Your task to perform on an android device: allow cookies in the chrome app Image 0: 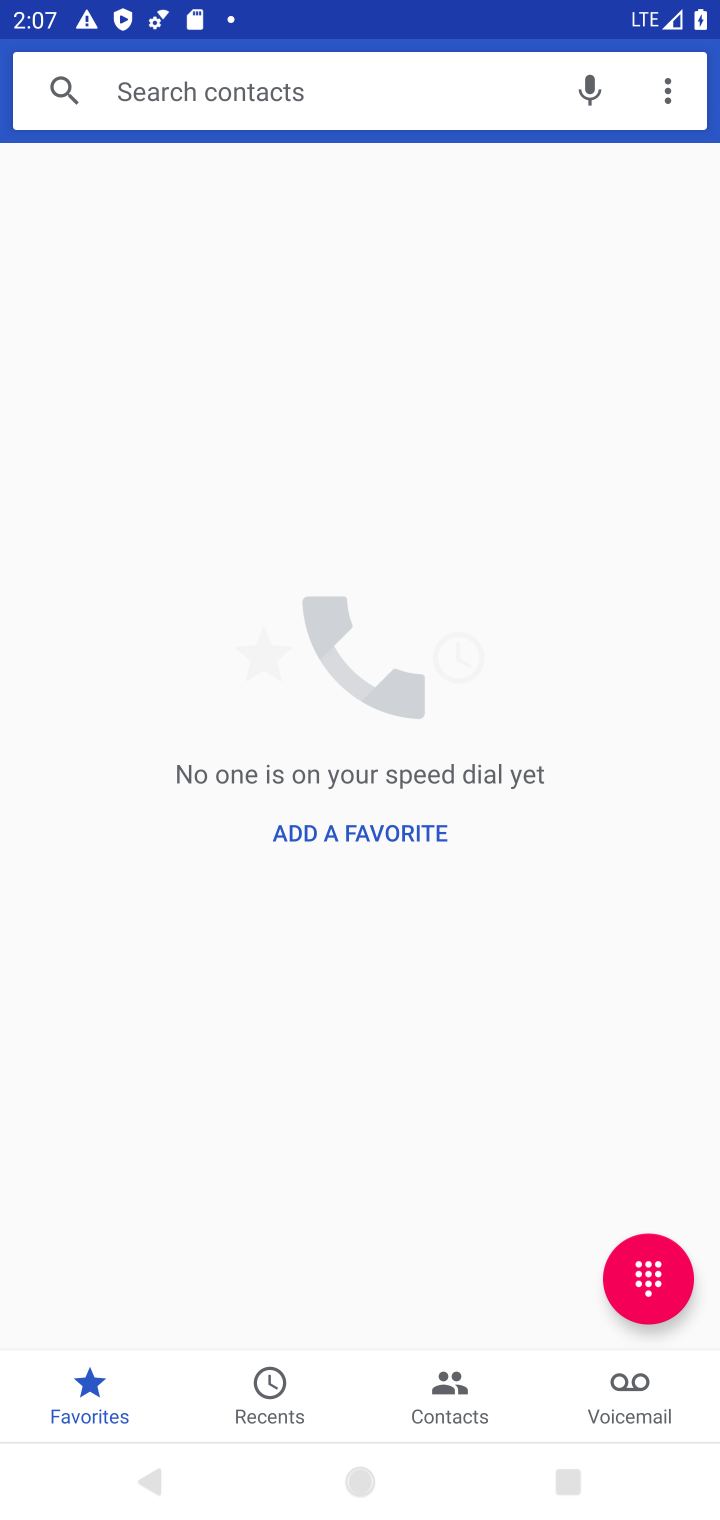
Step 0: press back button
Your task to perform on an android device: allow cookies in the chrome app Image 1: 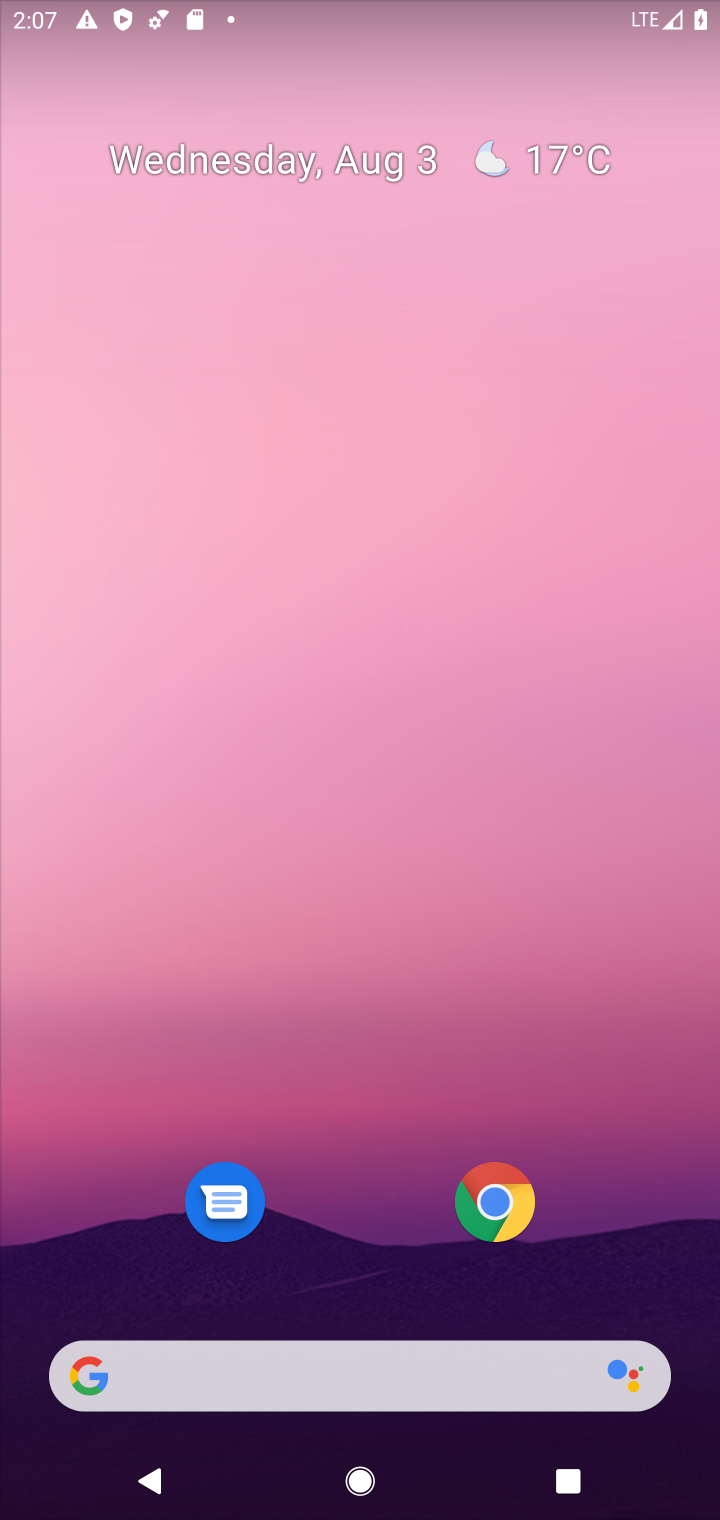
Step 1: press back button
Your task to perform on an android device: allow cookies in the chrome app Image 2: 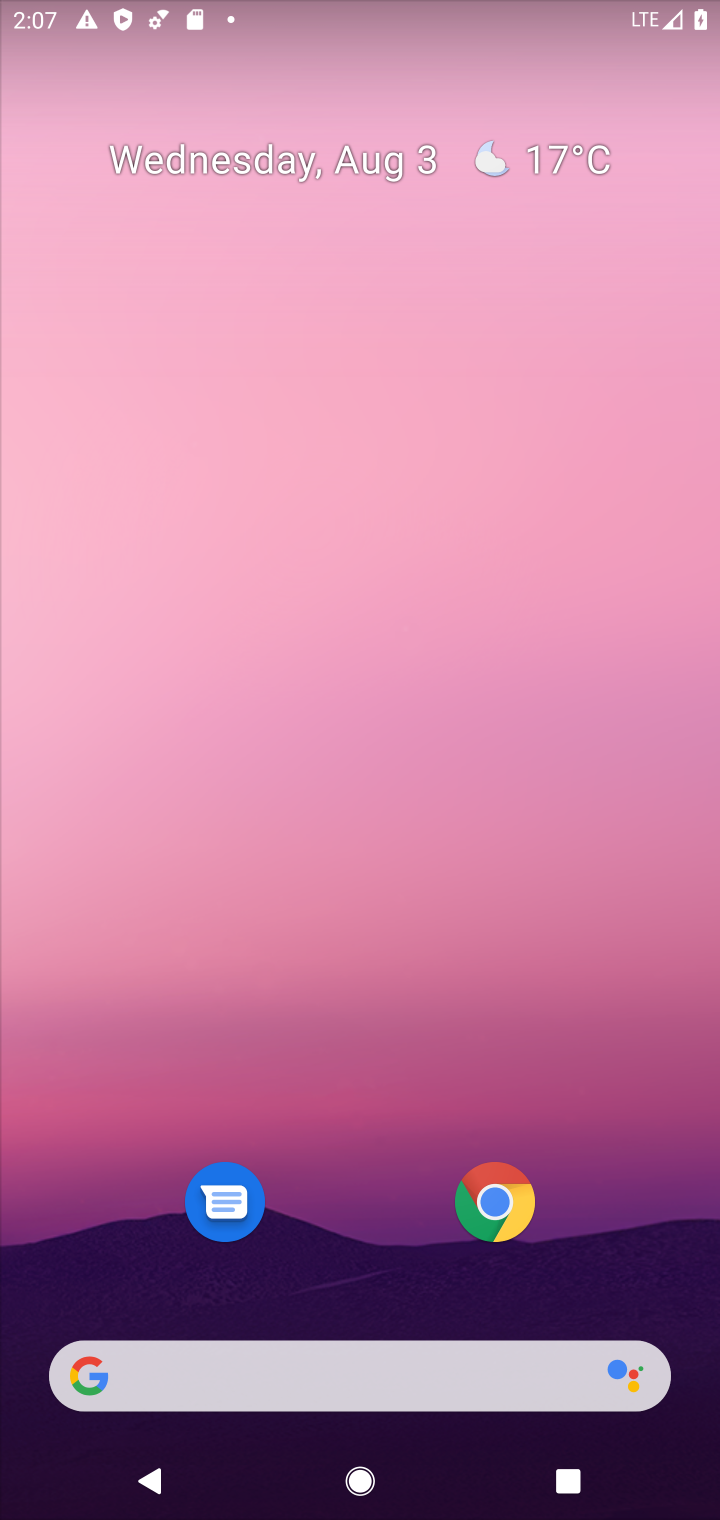
Step 2: click (533, 1200)
Your task to perform on an android device: allow cookies in the chrome app Image 3: 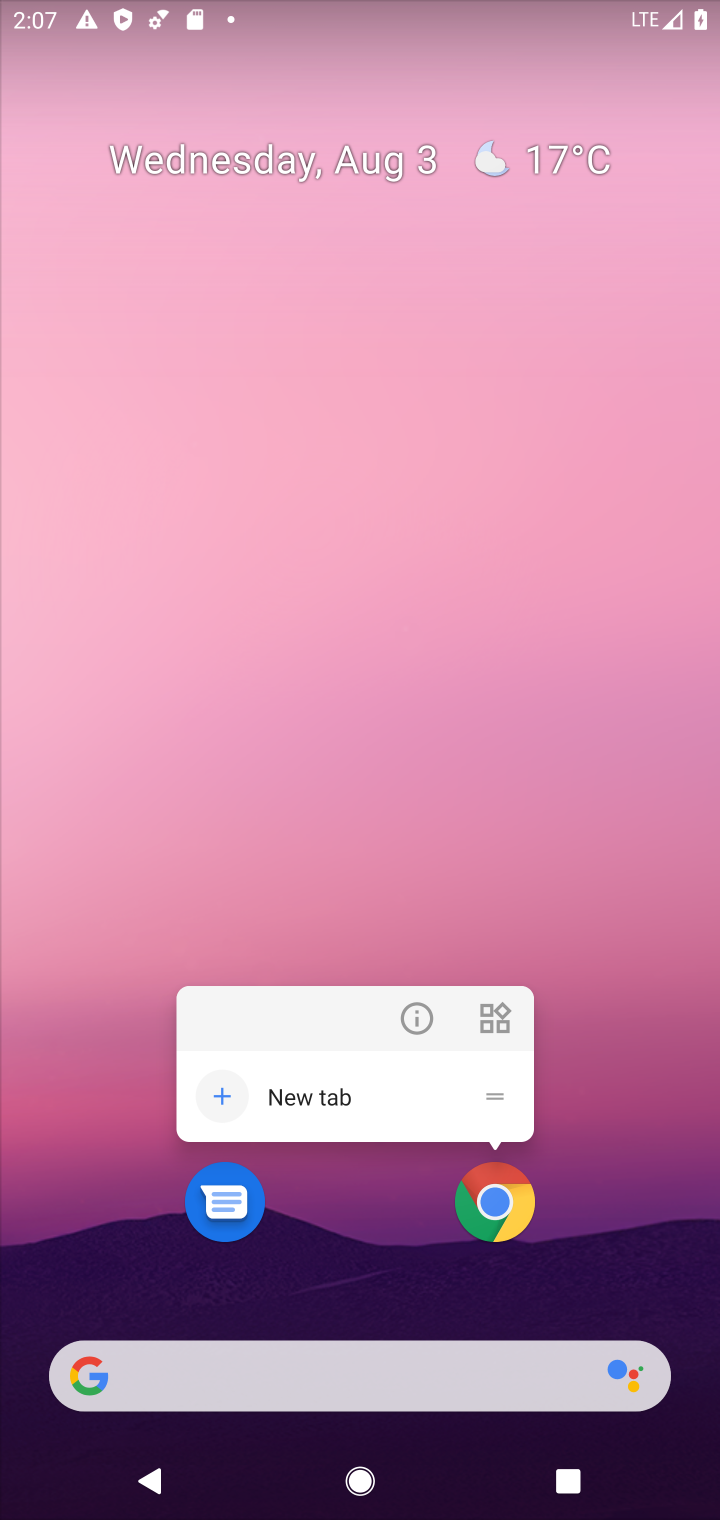
Step 3: click (470, 1198)
Your task to perform on an android device: allow cookies in the chrome app Image 4: 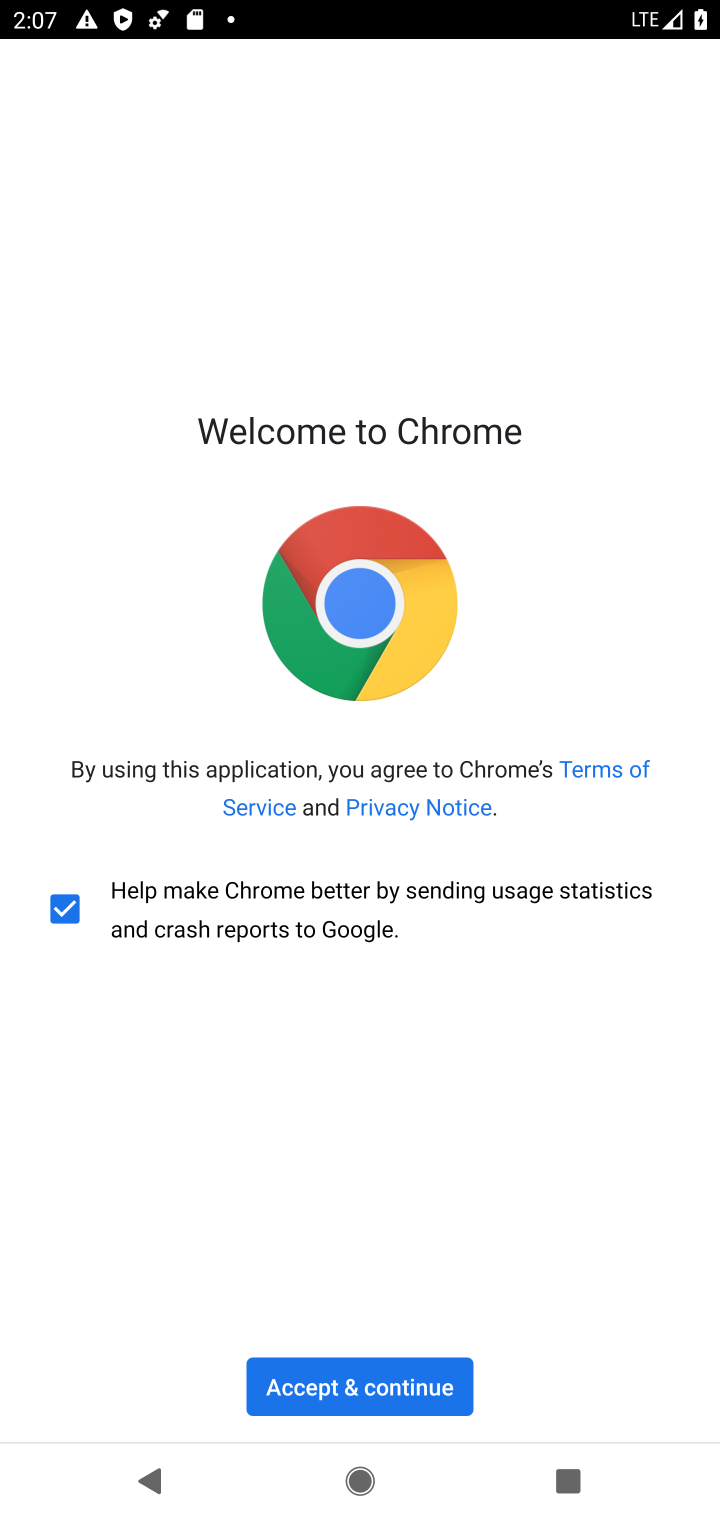
Step 4: click (345, 1385)
Your task to perform on an android device: allow cookies in the chrome app Image 5: 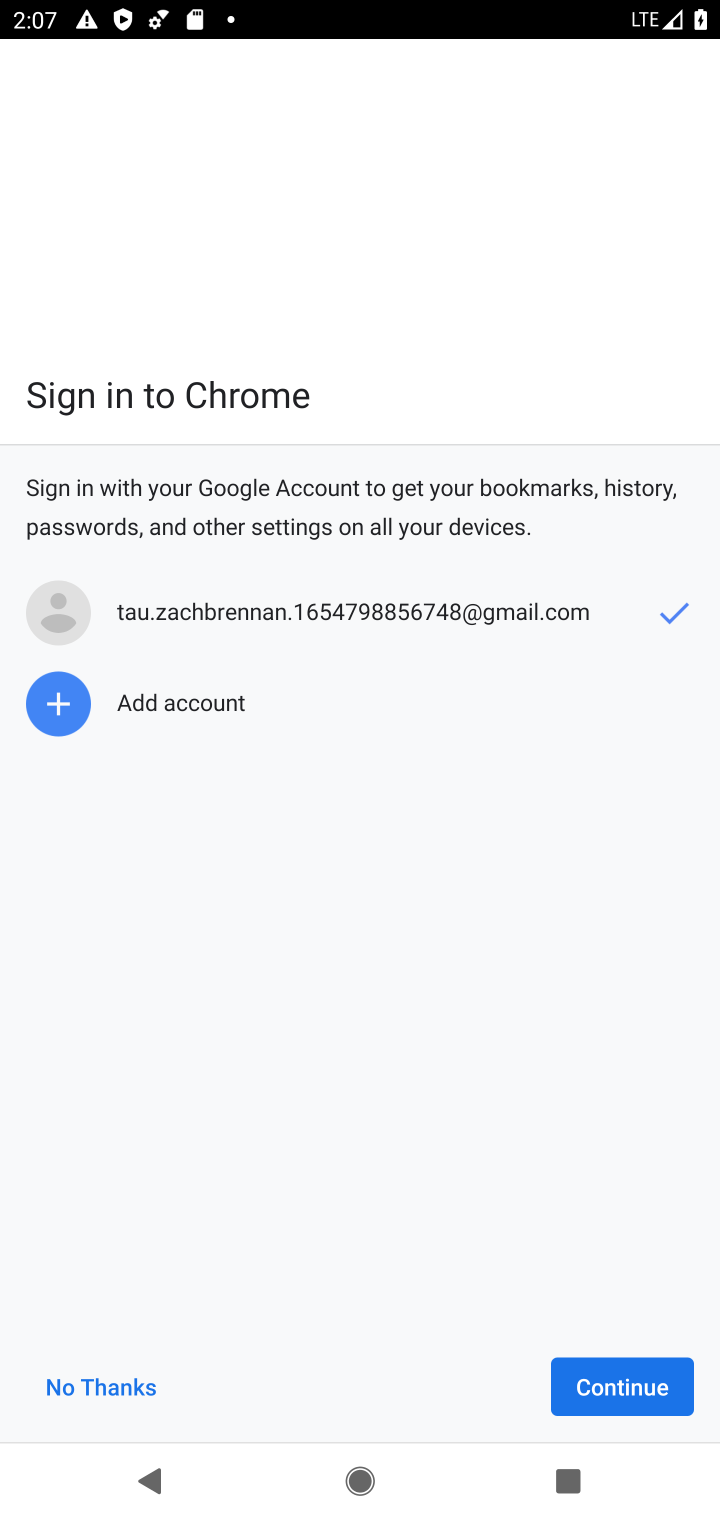
Step 5: click (584, 1389)
Your task to perform on an android device: allow cookies in the chrome app Image 6: 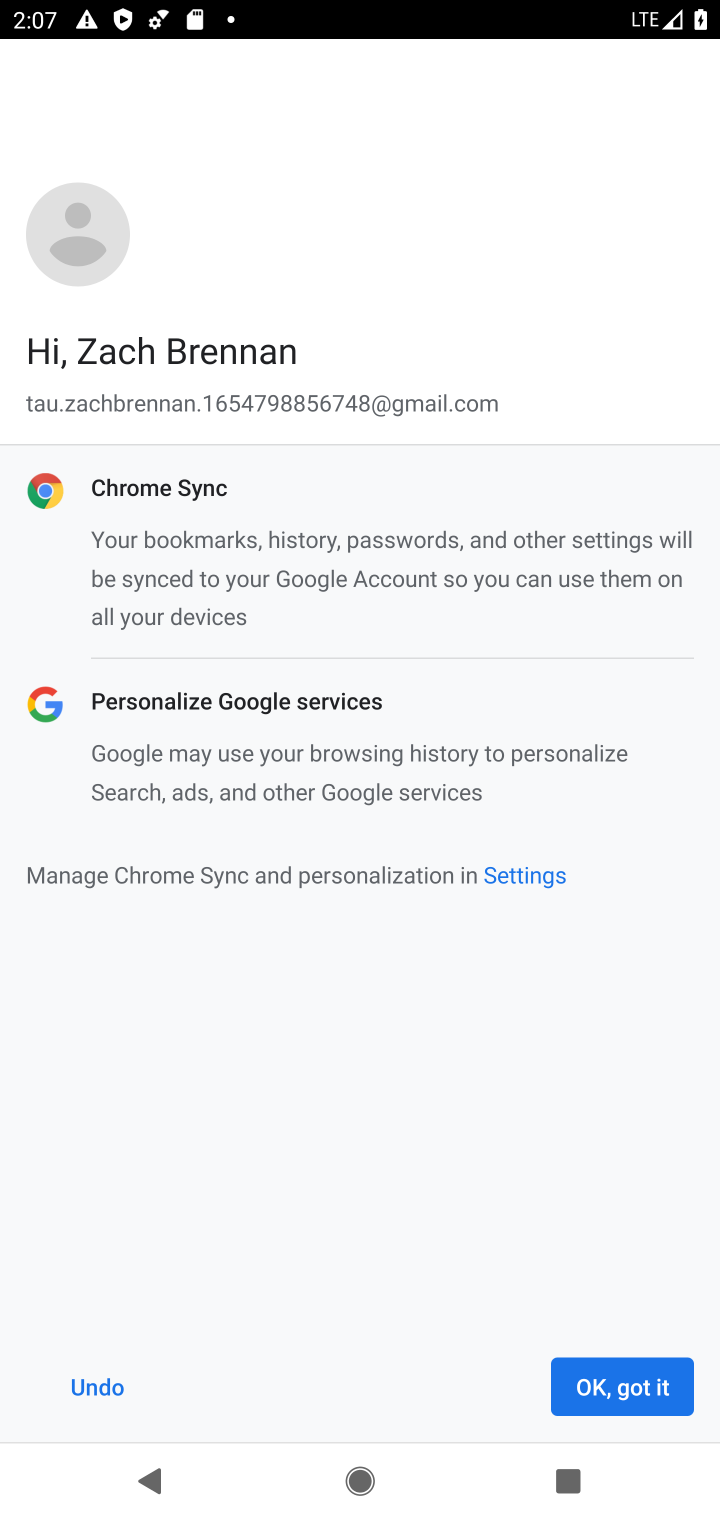
Step 6: click (590, 1385)
Your task to perform on an android device: allow cookies in the chrome app Image 7: 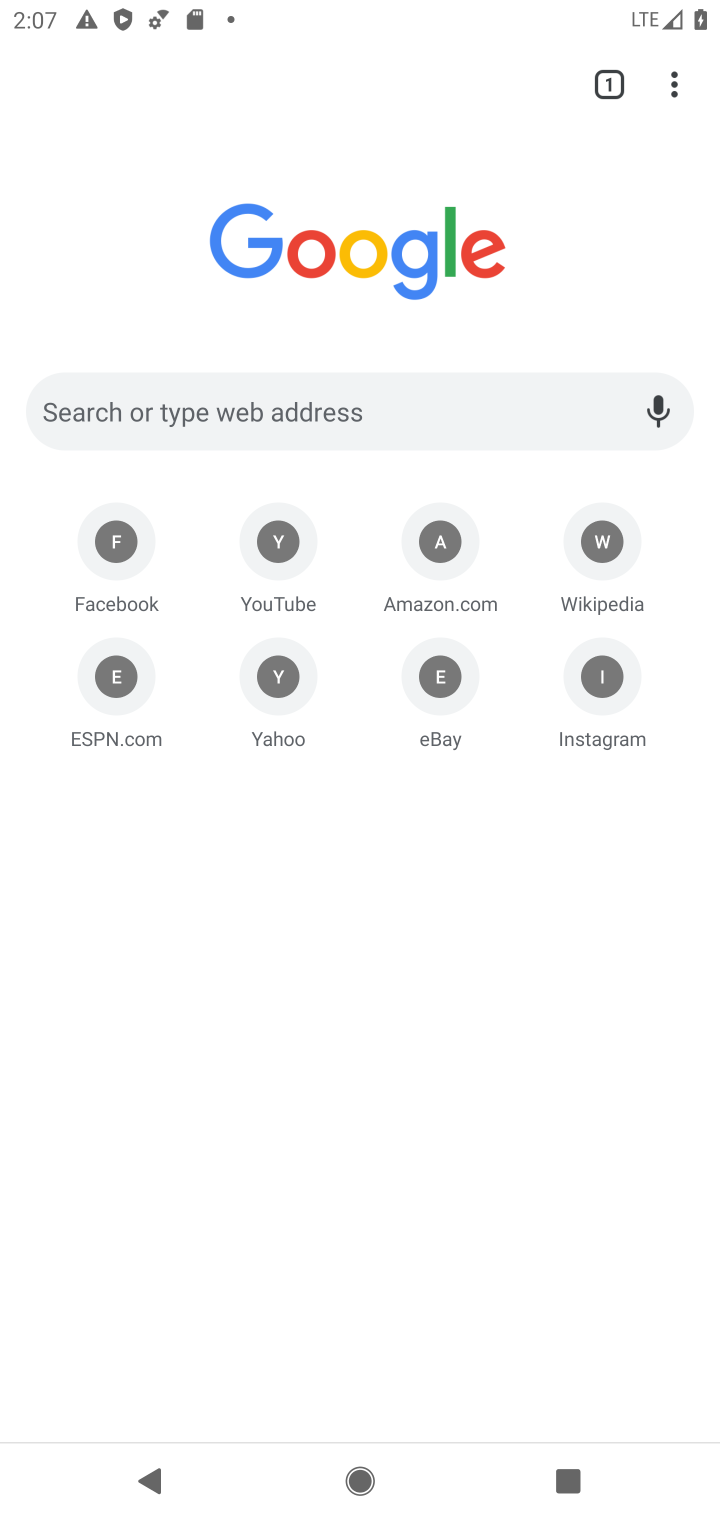
Step 7: drag from (682, 74) to (391, 701)
Your task to perform on an android device: allow cookies in the chrome app Image 8: 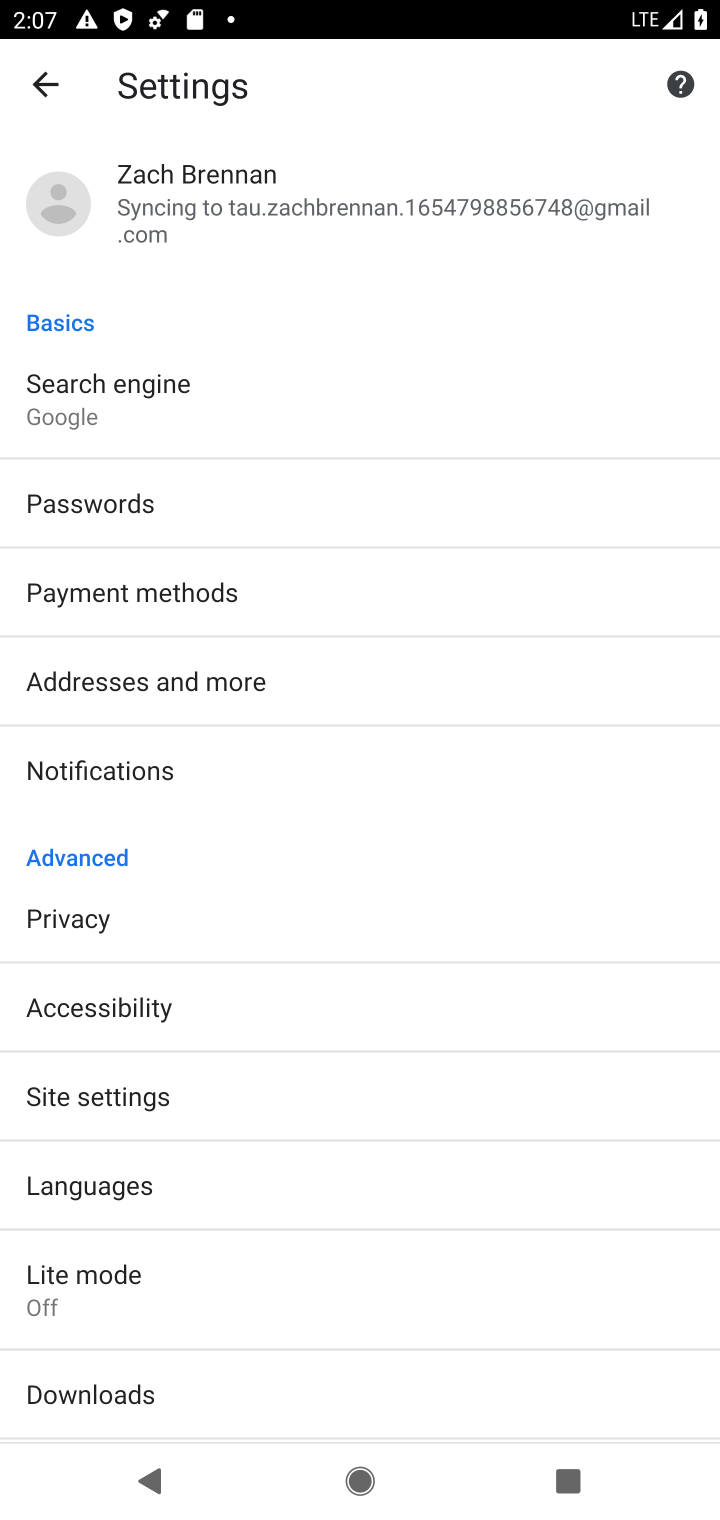
Step 8: click (153, 1089)
Your task to perform on an android device: allow cookies in the chrome app Image 9: 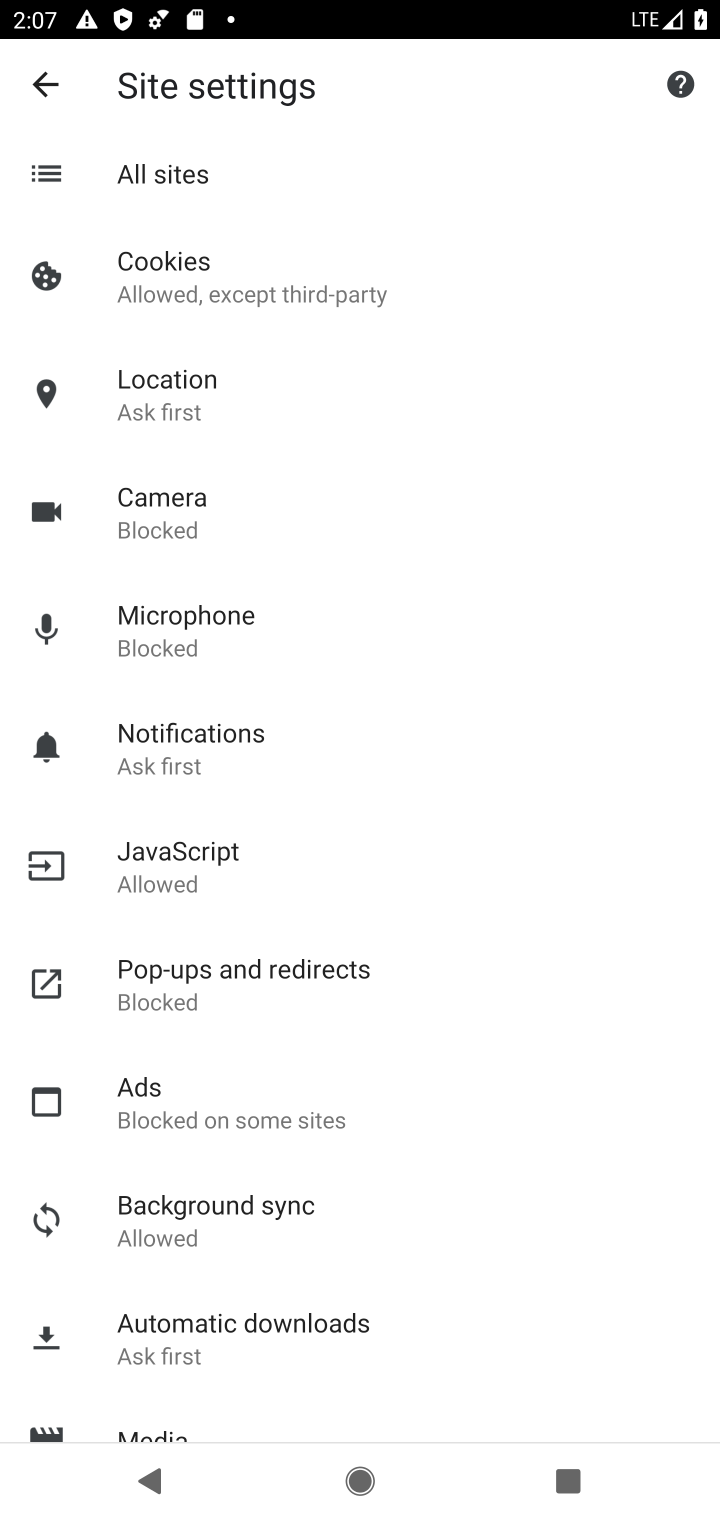
Step 9: click (251, 294)
Your task to perform on an android device: allow cookies in the chrome app Image 10: 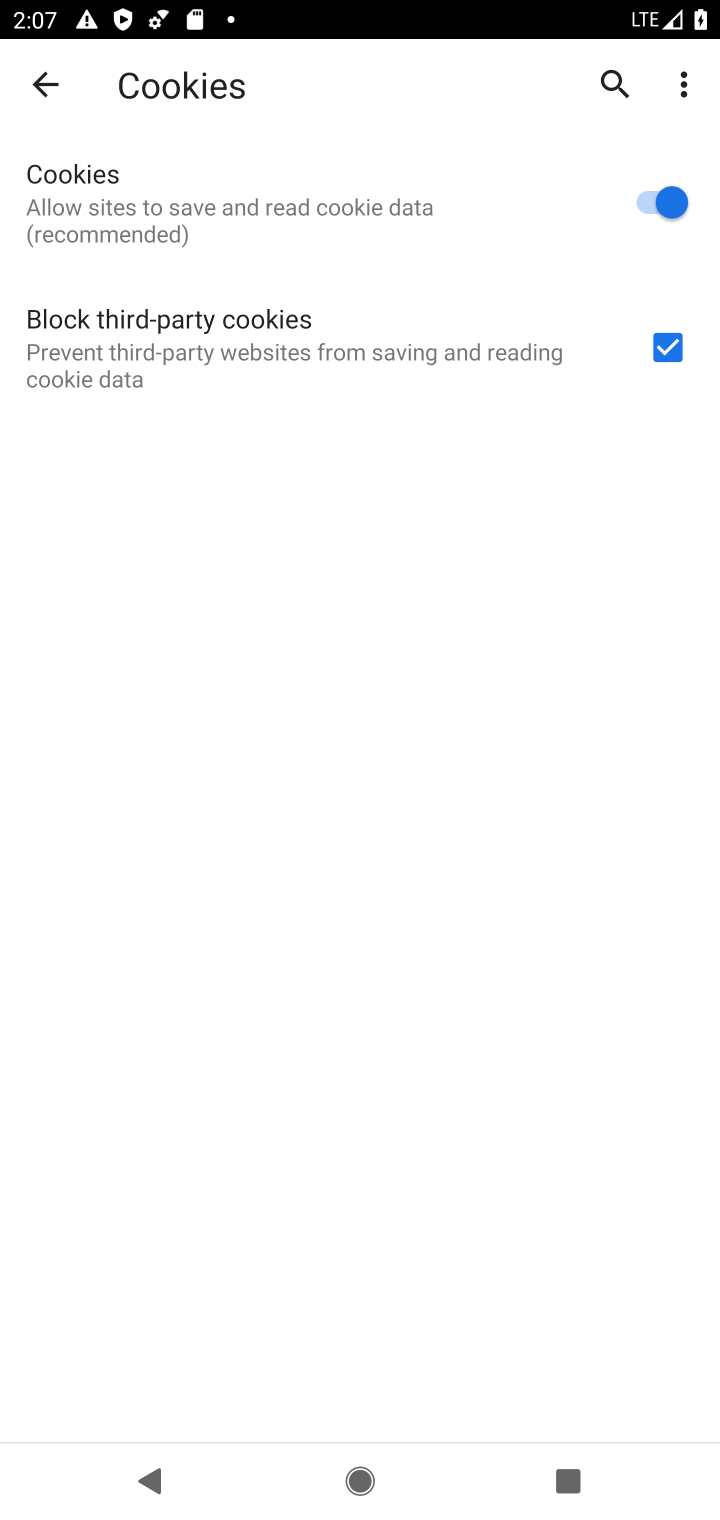
Step 10: task complete